Your task to perform on an android device: Go to privacy settings Image 0: 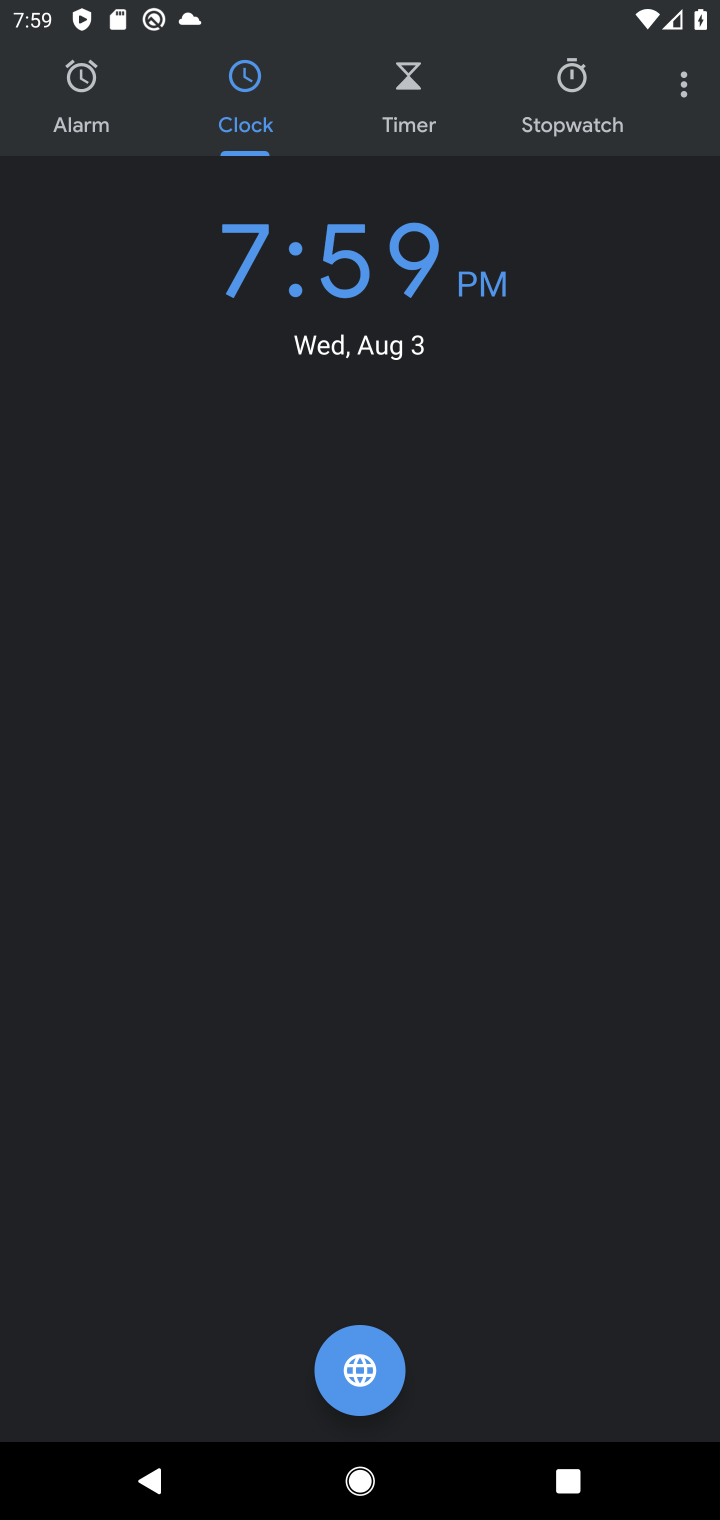
Step 0: press home button
Your task to perform on an android device: Go to privacy settings Image 1: 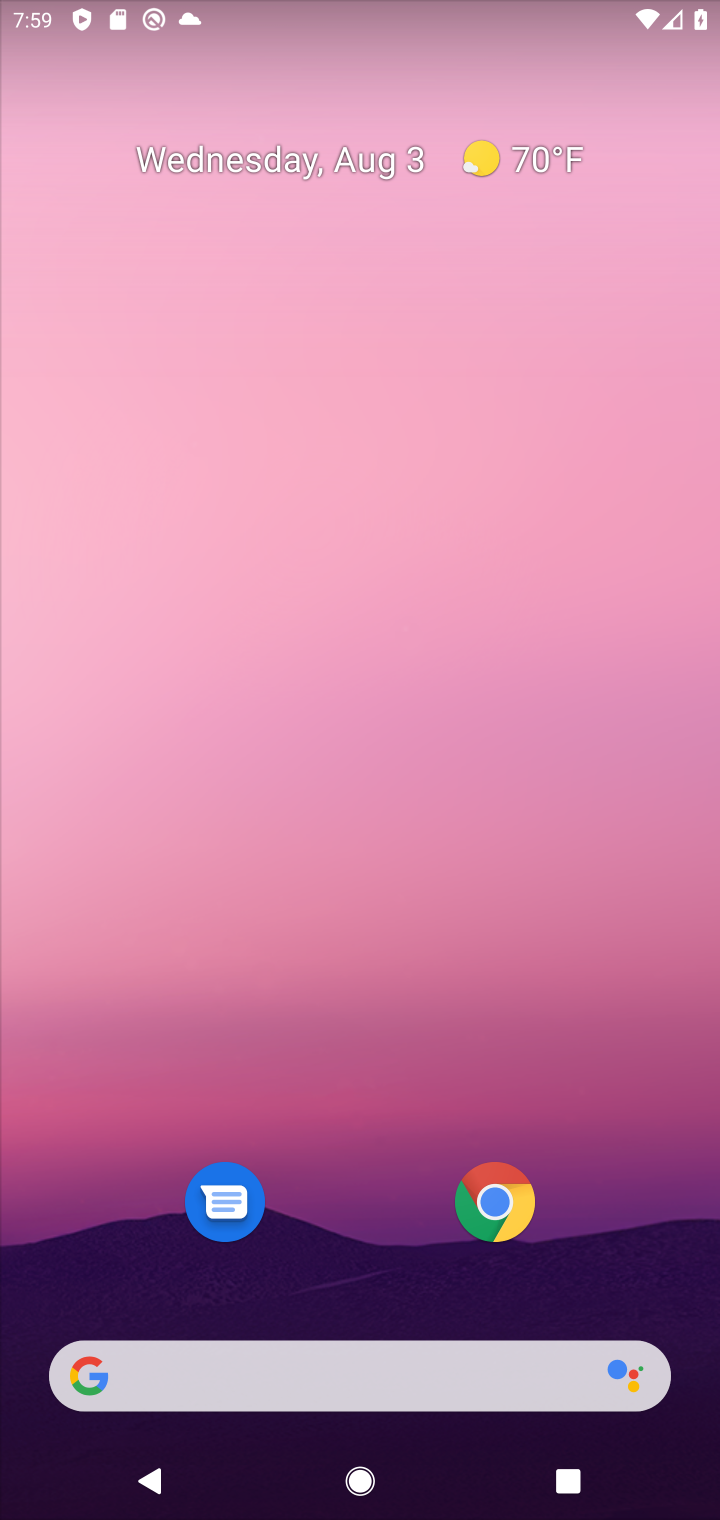
Step 1: drag from (359, 1299) to (458, 249)
Your task to perform on an android device: Go to privacy settings Image 2: 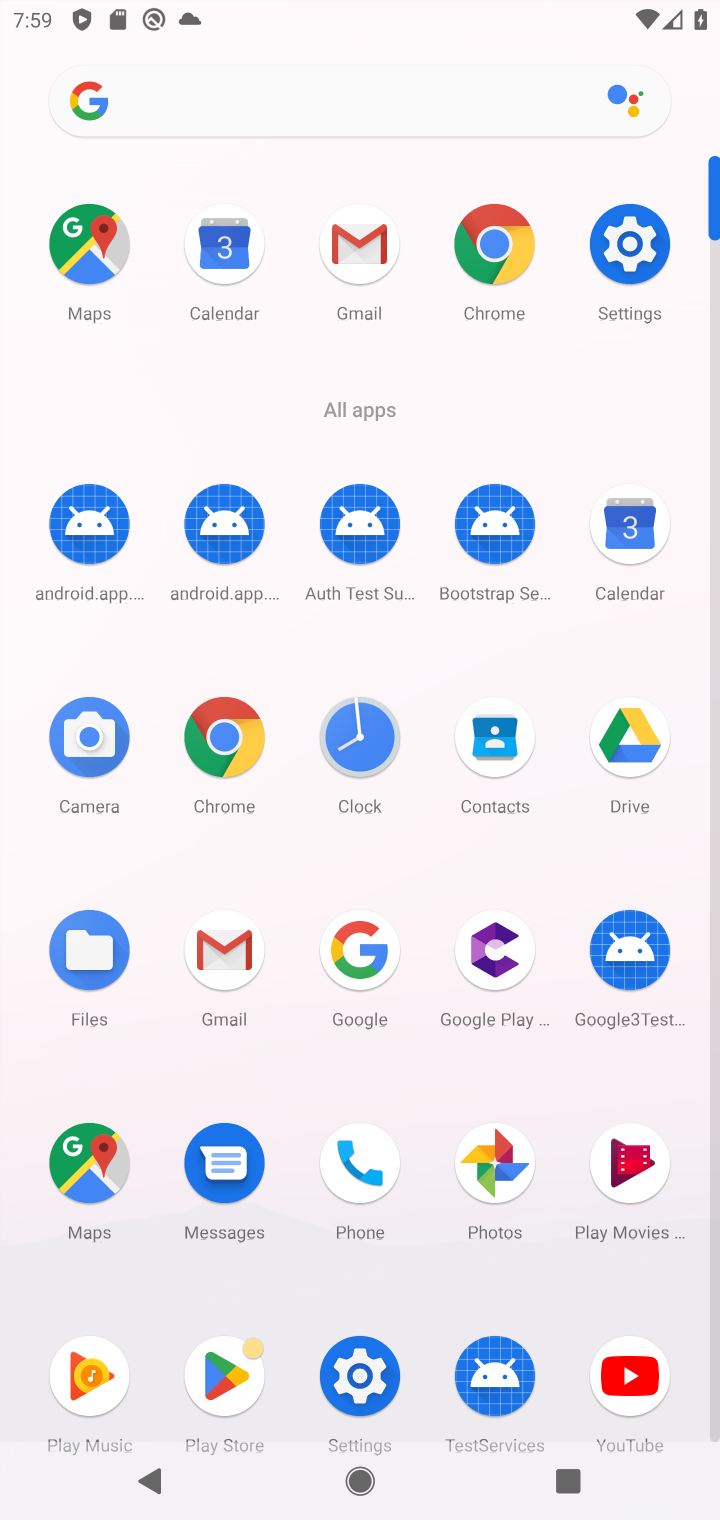
Step 2: click (632, 243)
Your task to perform on an android device: Go to privacy settings Image 3: 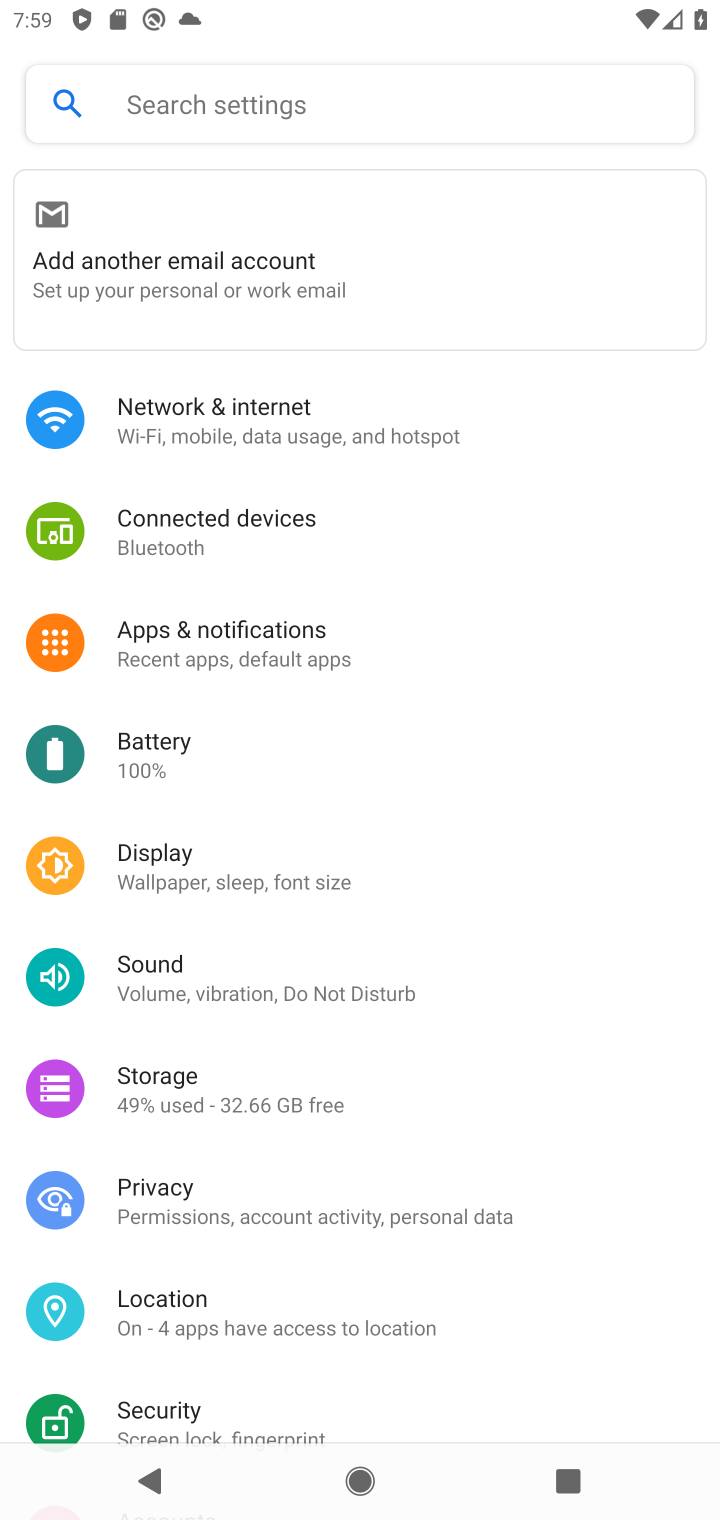
Step 3: drag from (248, 733) to (281, 541)
Your task to perform on an android device: Go to privacy settings Image 4: 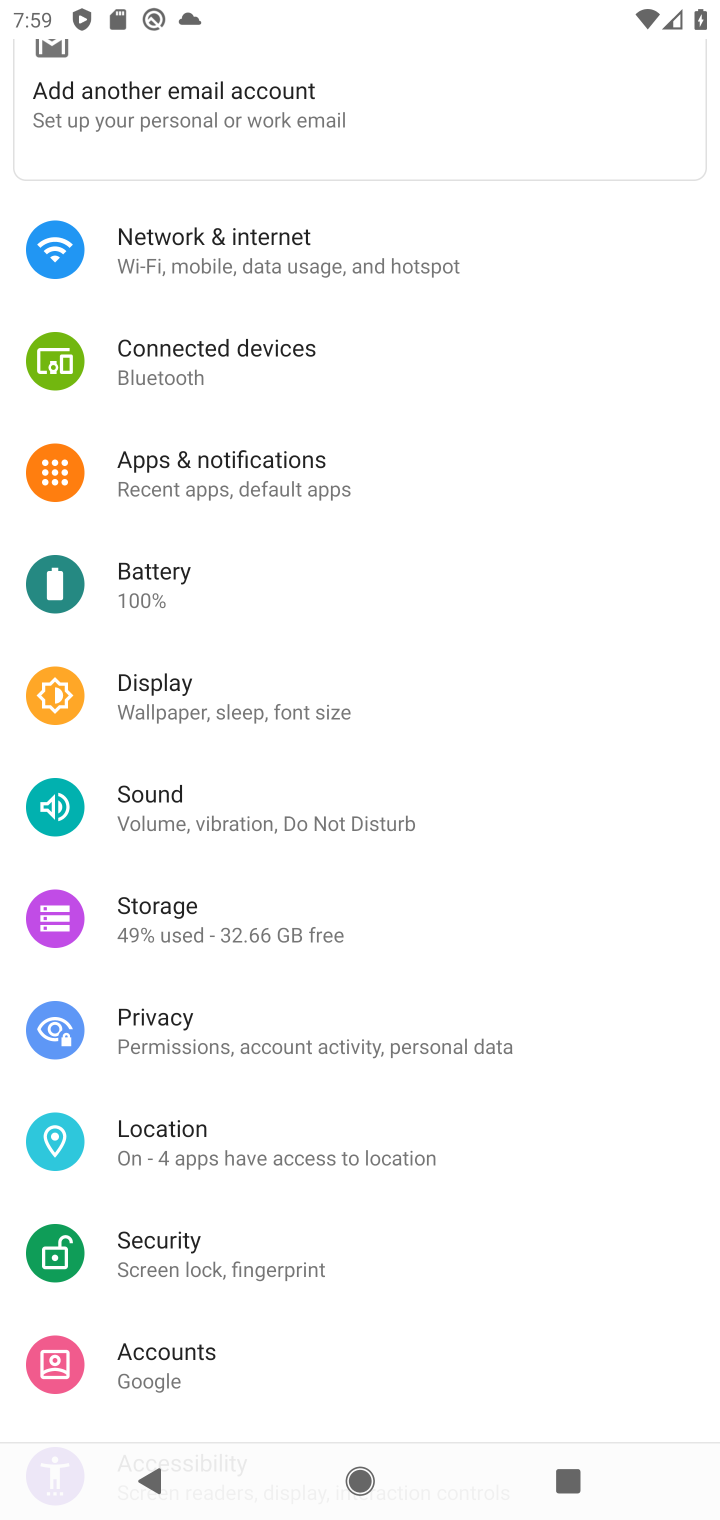
Step 4: drag from (230, 987) to (253, 821)
Your task to perform on an android device: Go to privacy settings Image 5: 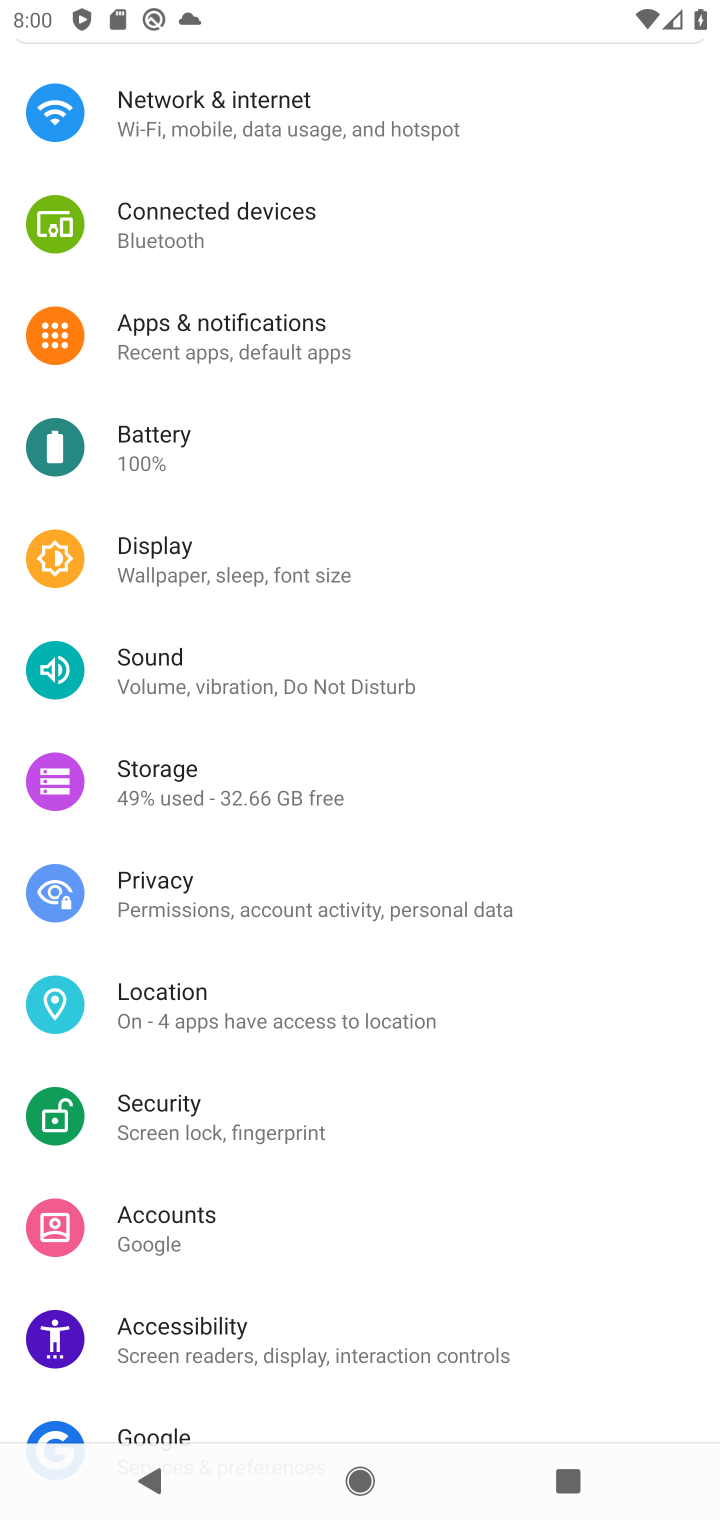
Step 5: click (234, 910)
Your task to perform on an android device: Go to privacy settings Image 6: 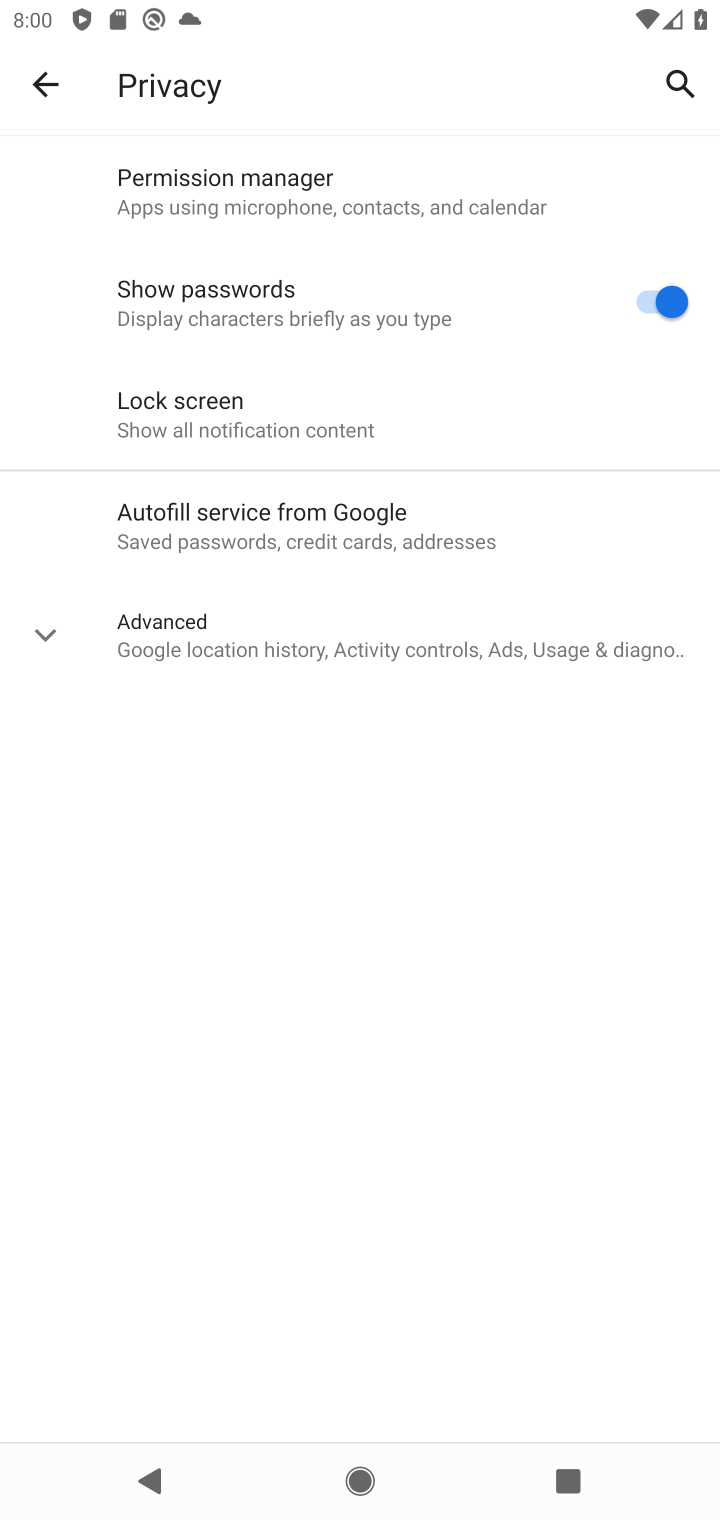
Step 6: task complete